Your task to perform on an android device: Open my contact list Image 0: 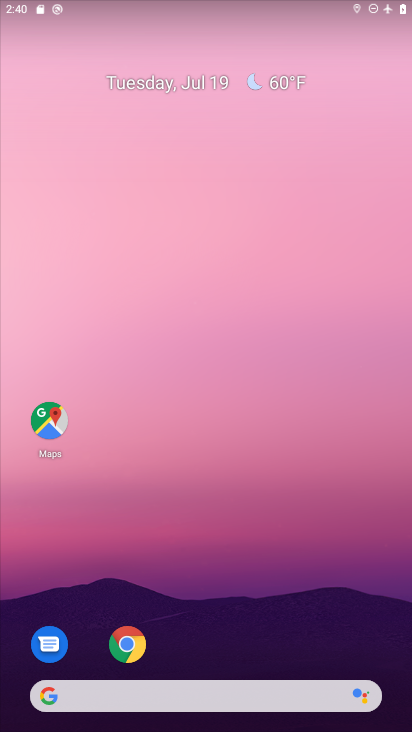
Step 0: drag from (199, 666) to (190, 137)
Your task to perform on an android device: Open my contact list Image 1: 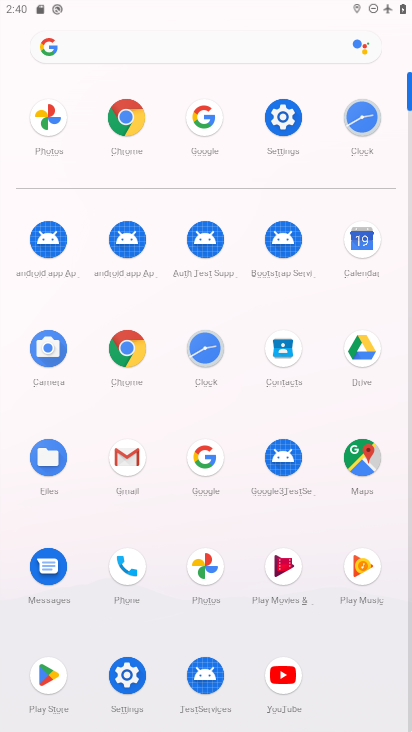
Step 1: click (120, 569)
Your task to perform on an android device: Open my contact list Image 2: 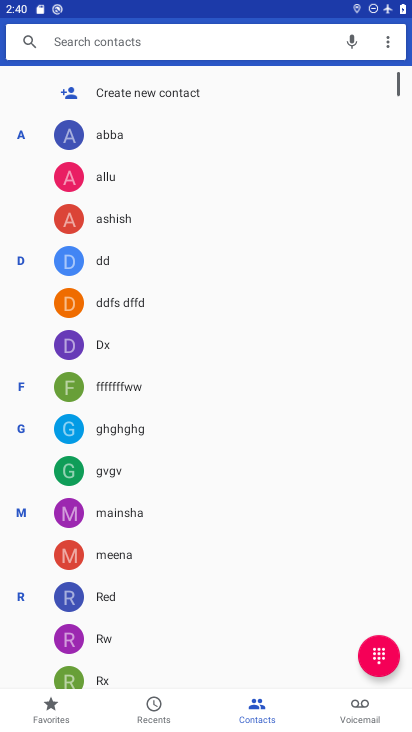
Step 2: click (264, 701)
Your task to perform on an android device: Open my contact list Image 3: 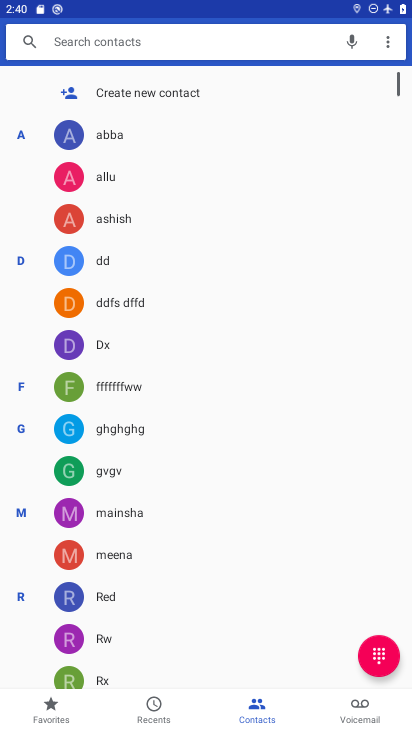
Step 3: task complete